Your task to perform on an android device: Open Maps and search for coffee Image 0: 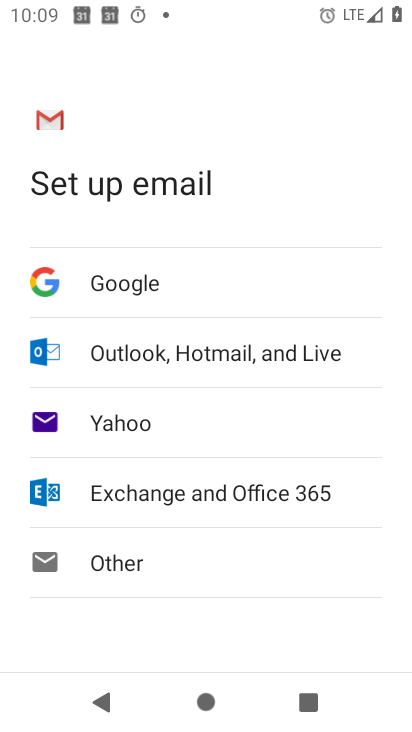
Step 0: press home button
Your task to perform on an android device: Open Maps and search for coffee Image 1: 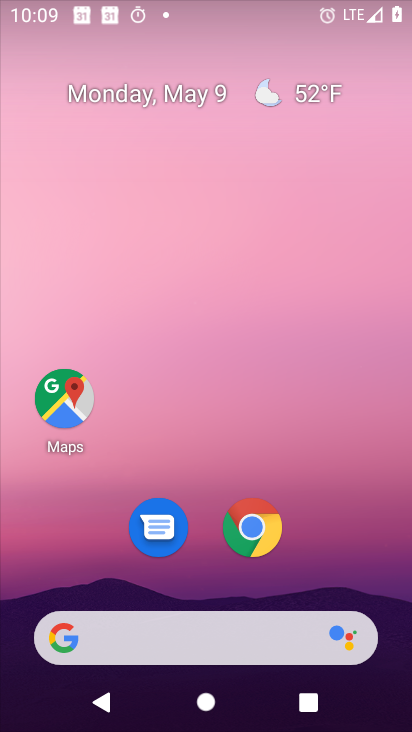
Step 1: click (56, 407)
Your task to perform on an android device: Open Maps and search for coffee Image 2: 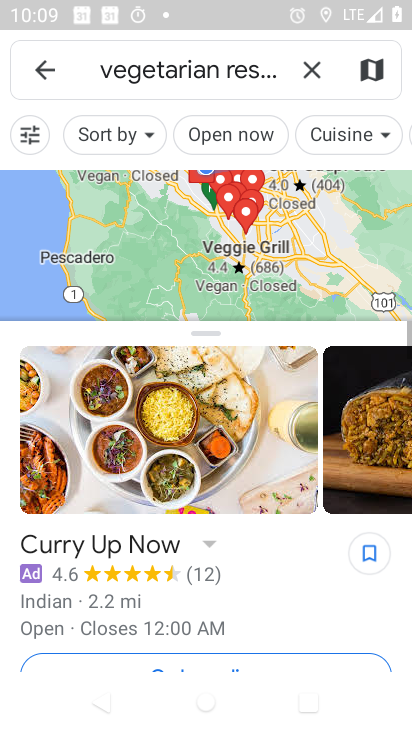
Step 2: click (313, 65)
Your task to perform on an android device: Open Maps and search for coffee Image 3: 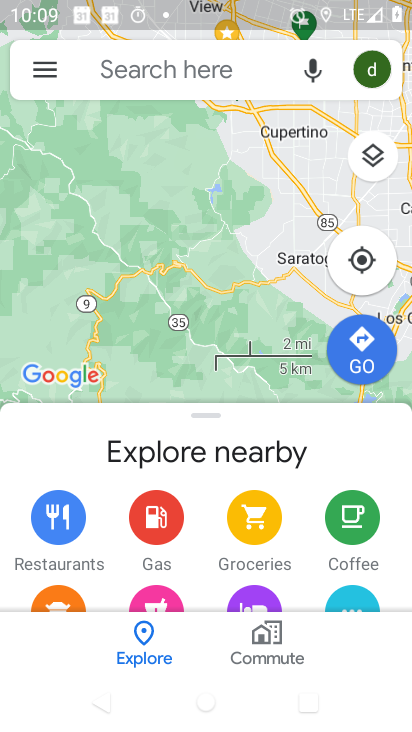
Step 3: click (180, 72)
Your task to perform on an android device: Open Maps and search for coffee Image 4: 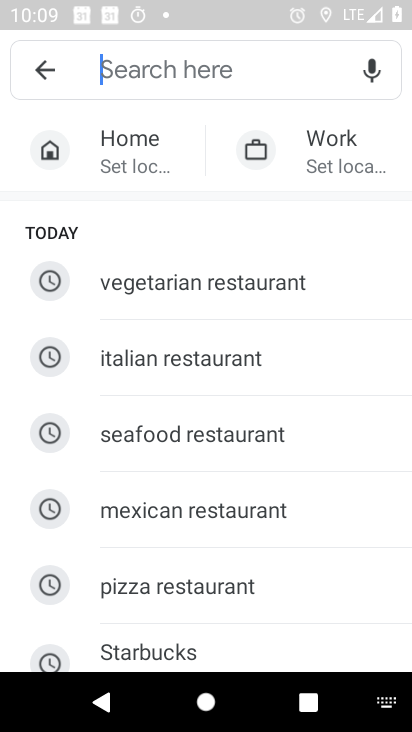
Step 4: type "coffee"
Your task to perform on an android device: Open Maps and search for coffee Image 5: 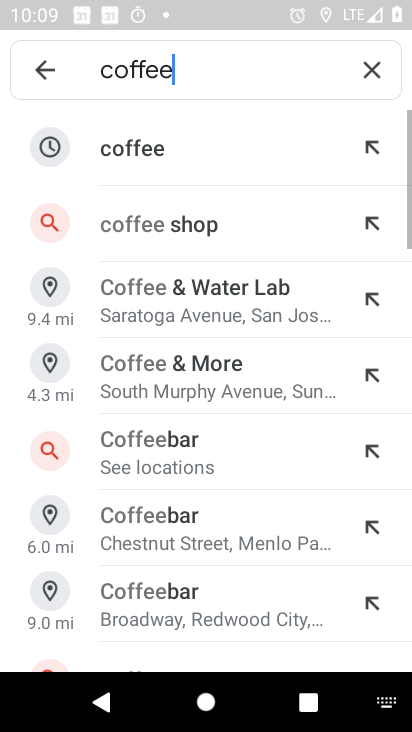
Step 5: click (167, 156)
Your task to perform on an android device: Open Maps and search for coffee Image 6: 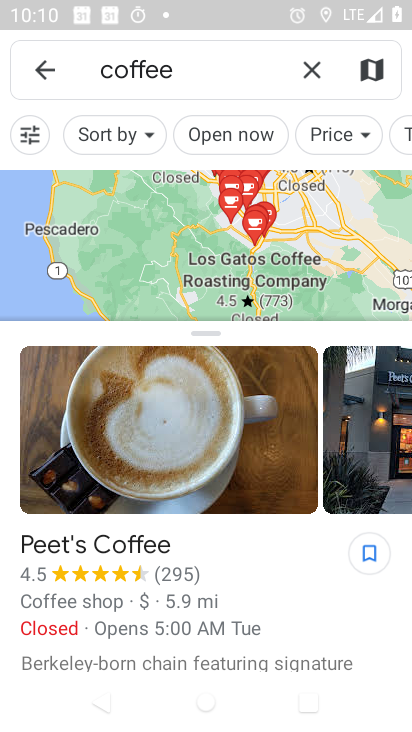
Step 6: task complete